Your task to perform on an android device: See recent photos Image 0: 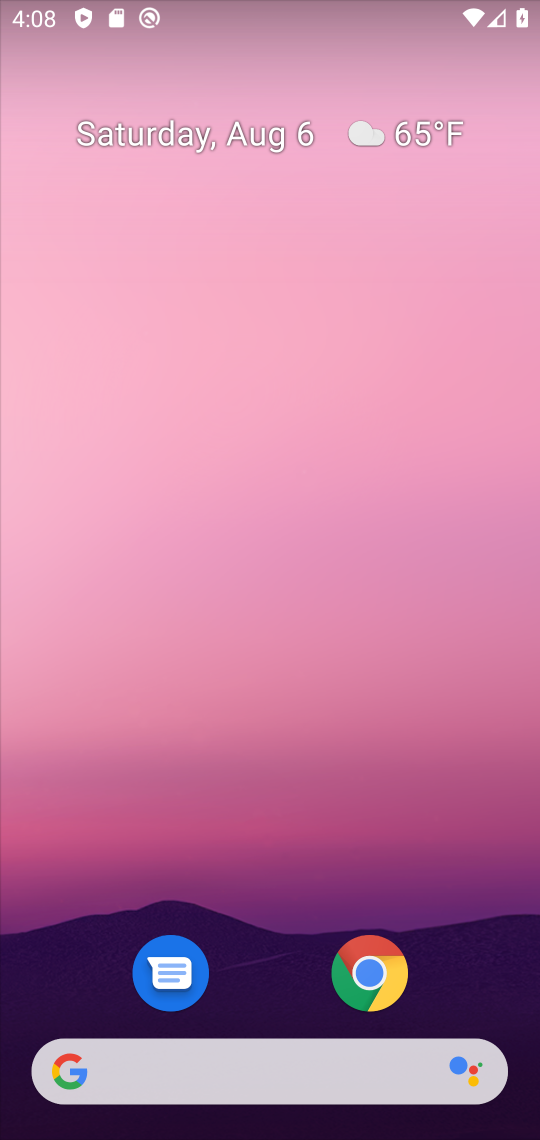
Step 0: drag from (267, 908) to (237, 7)
Your task to perform on an android device: See recent photos Image 1: 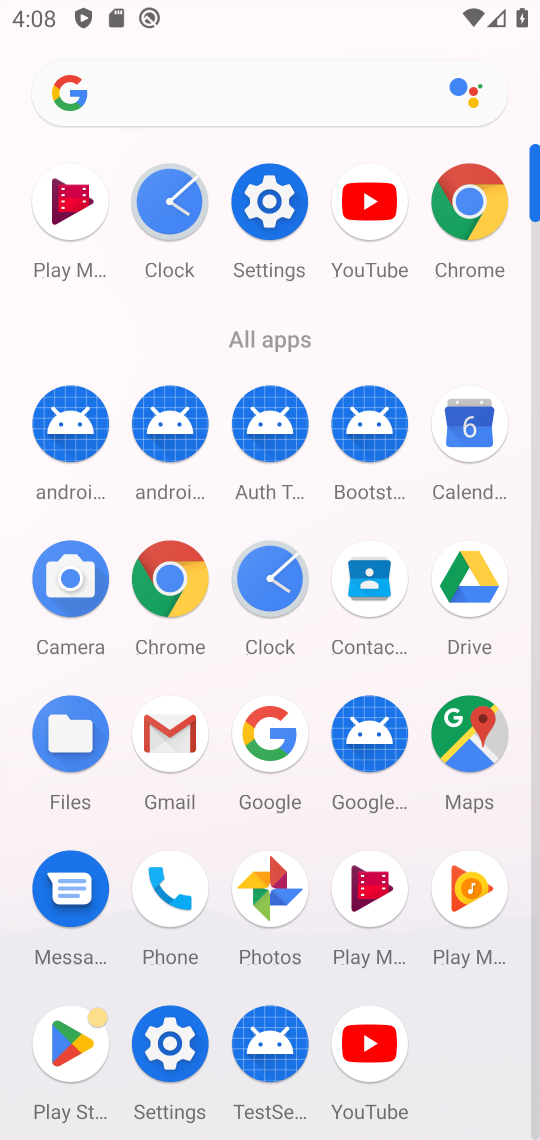
Step 1: click (272, 894)
Your task to perform on an android device: See recent photos Image 2: 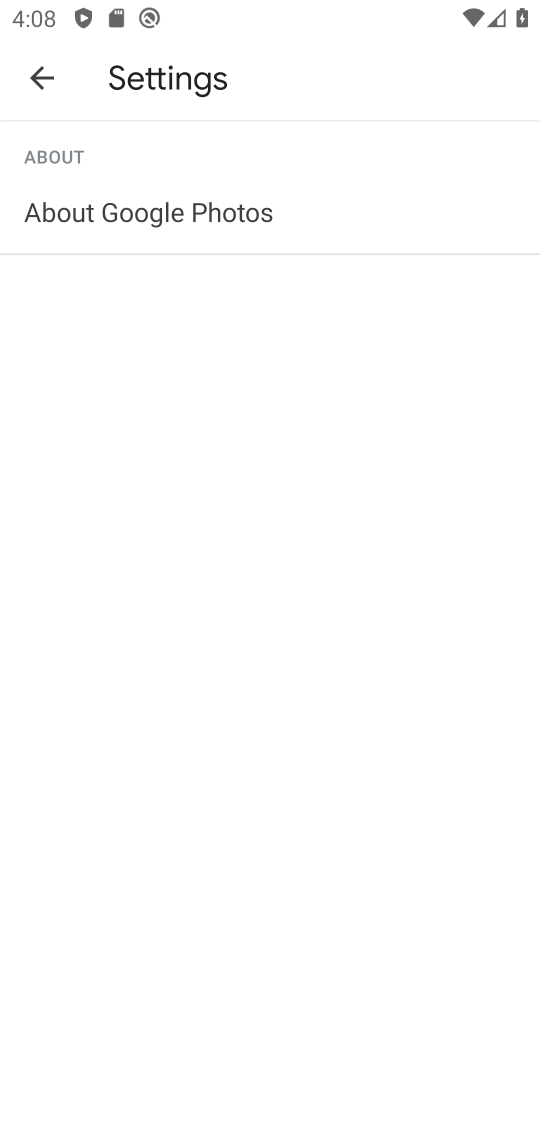
Step 2: click (39, 88)
Your task to perform on an android device: See recent photos Image 3: 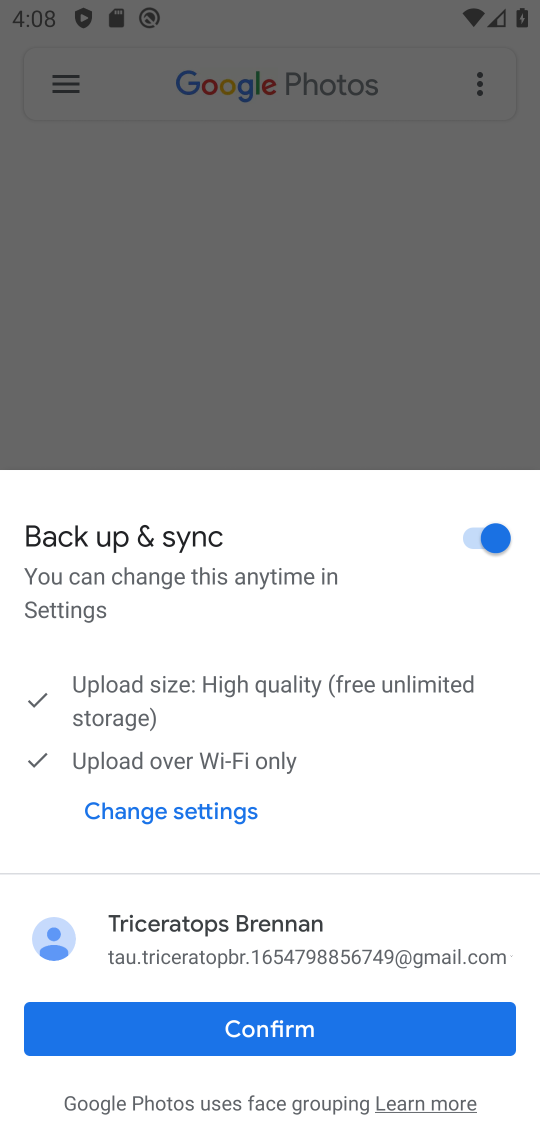
Step 3: click (318, 1041)
Your task to perform on an android device: See recent photos Image 4: 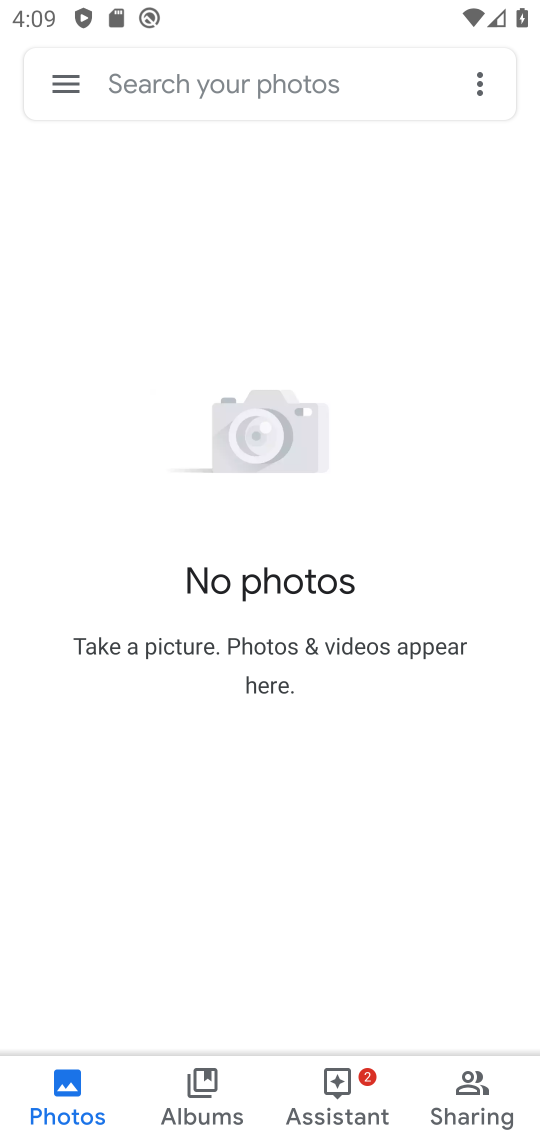
Step 4: task complete